Your task to perform on an android device: Open internet settings Image 0: 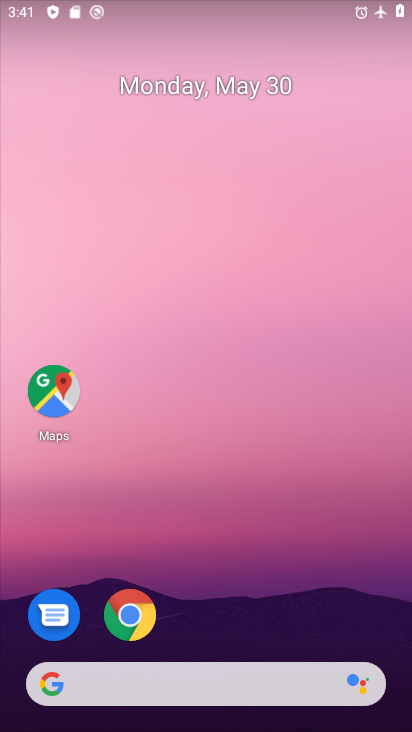
Step 0: drag from (233, 616) to (279, 27)
Your task to perform on an android device: Open internet settings Image 1: 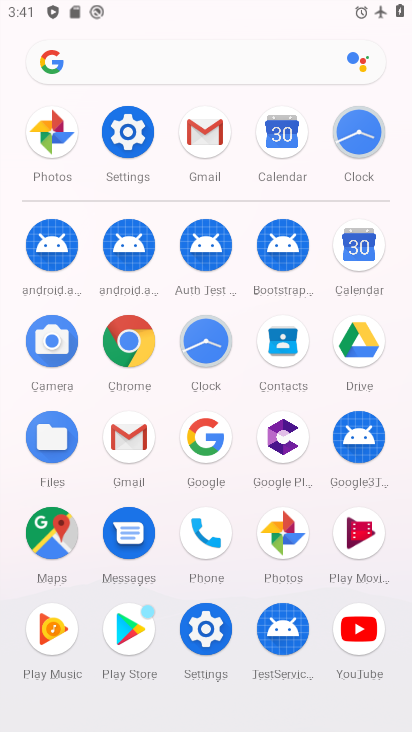
Step 1: click (136, 130)
Your task to perform on an android device: Open internet settings Image 2: 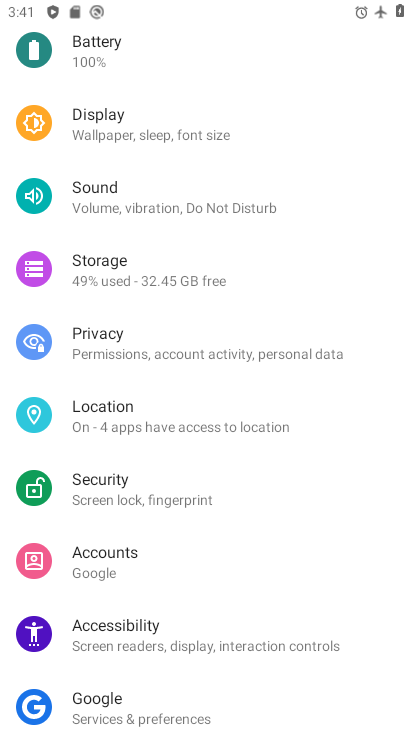
Step 2: drag from (168, 199) to (189, 605)
Your task to perform on an android device: Open internet settings Image 3: 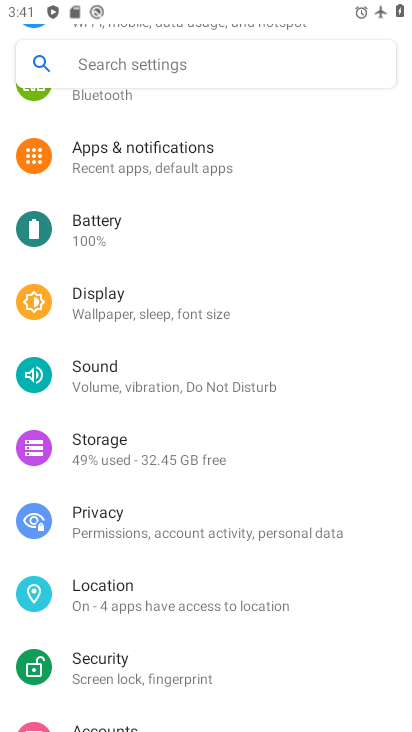
Step 3: drag from (235, 247) to (211, 569)
Your task to perform on an android device: Open internet settings Image 4: 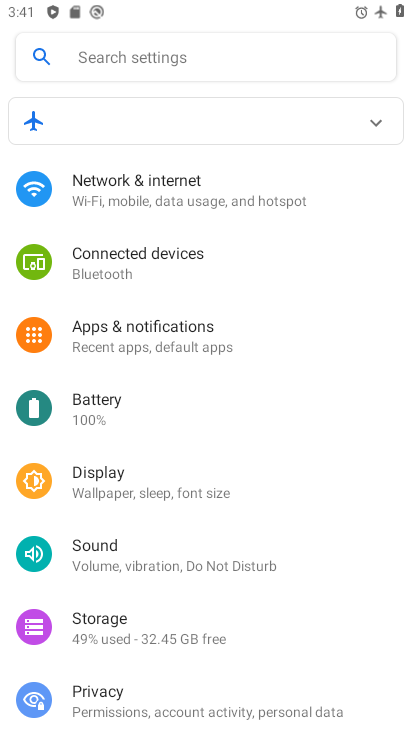
Step 4: click (205, 196)
Your task to perform on an android device: Open internet settings Image 5: 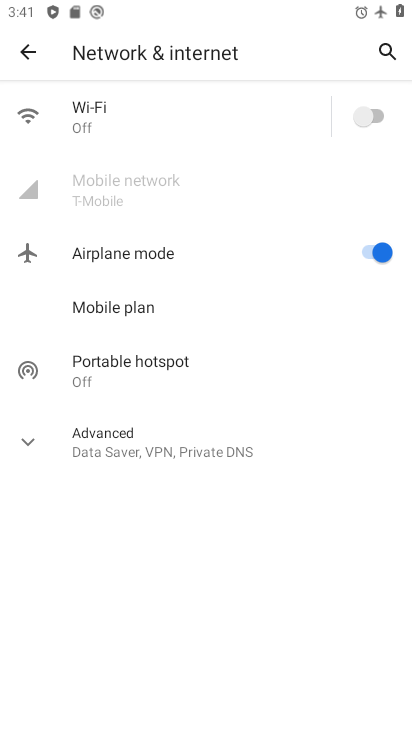
Step 5: task complete